Your task to perform on an android device: Do I have any events today? Image 0: 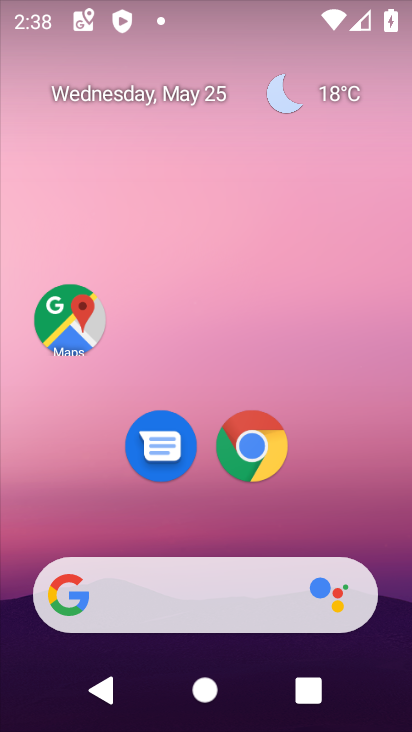
Step 0: drag from (190, 581) to (264, 111)
Your task to perform on an android device: Do I have any events today? Image 1: 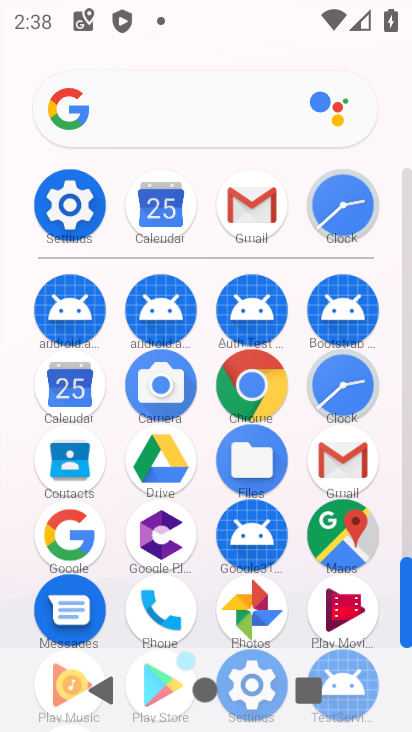
Step 1: click (62, 201)
Your task to perform on an android device: Do I have any events today? Image 2: 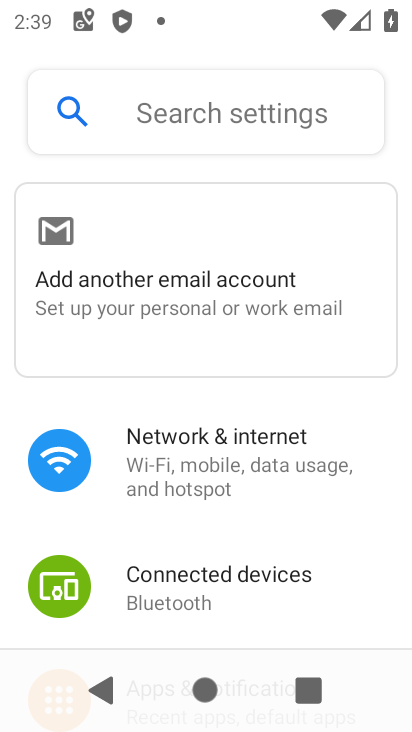
Step 2: press home button
Your task to perform on an android device: Do I have any events today? Image 3: 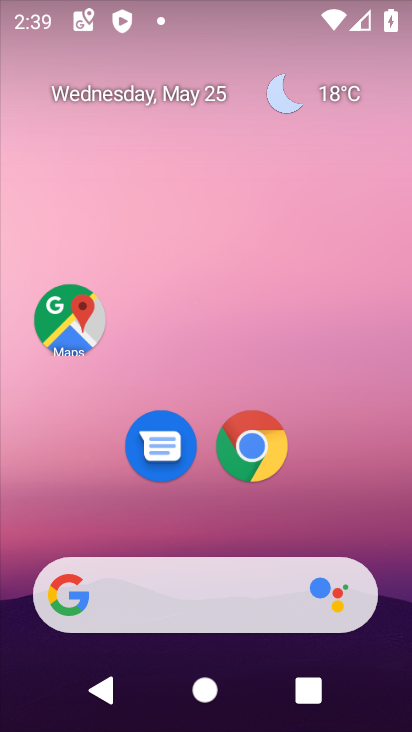
Step 3: drag from (207, 588) to (230, 239)
Your task to perform on an android device: Do I have any events today? Image 4: 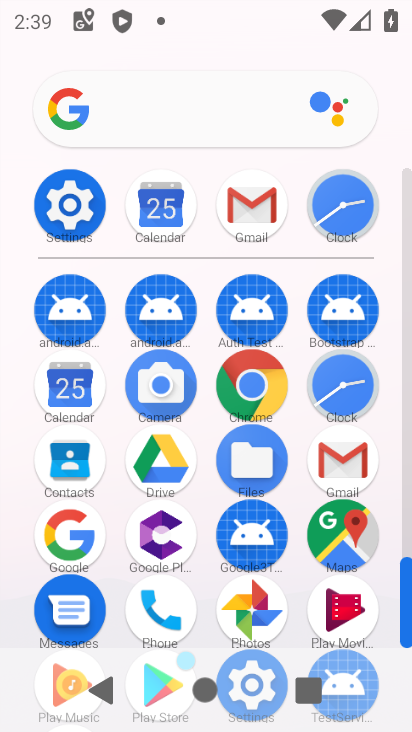
Step 4: click (55, 383)
Your task to perform on an android device: Do I have any events today? Image 5: 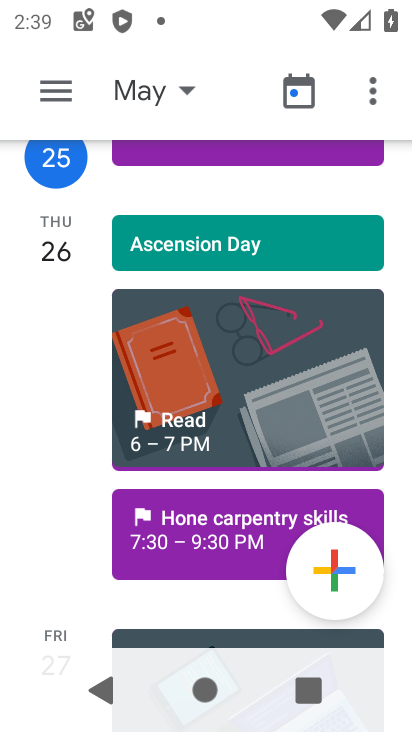
Step 5: task complete